Your task to perform on an android device: Is it going to rain today? Image 0: 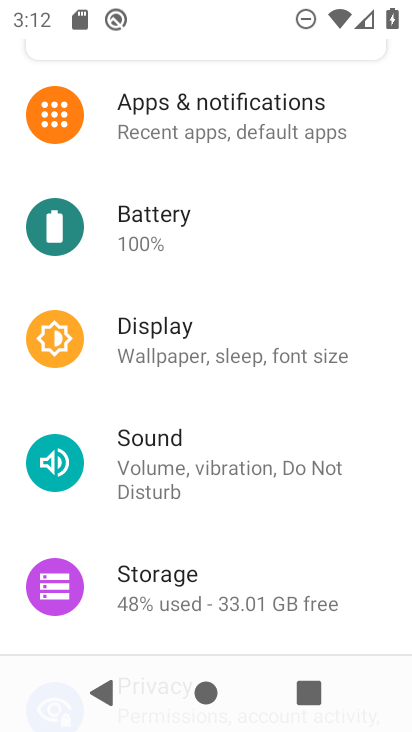
Step 0: press home button
Your task to perform on an android device: Is it going to rain today? Image 1: 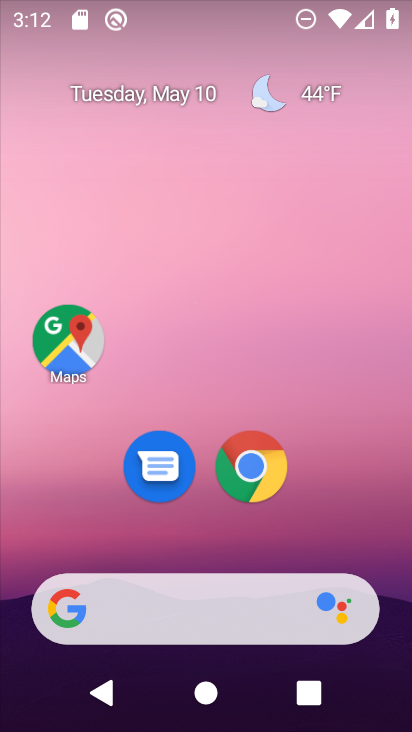
Step 1: drag from (270, 567) to (272, 44)
Your task to perform on an android device: Is it going to rain today? Image 2: 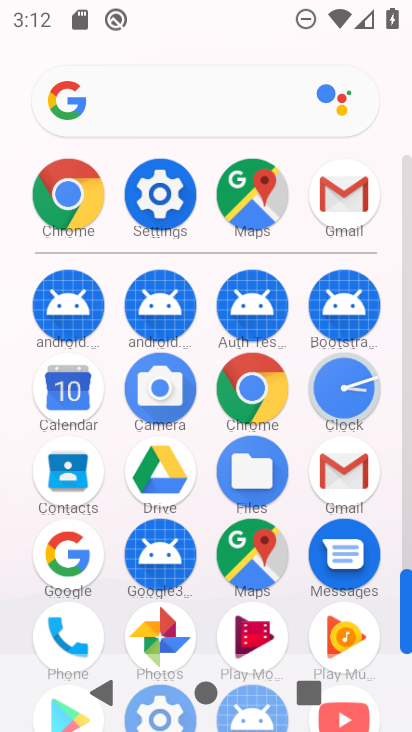
Step 2: click (204, 103)
Your task to perform on an android device: Is it going to rain today? Image 3: 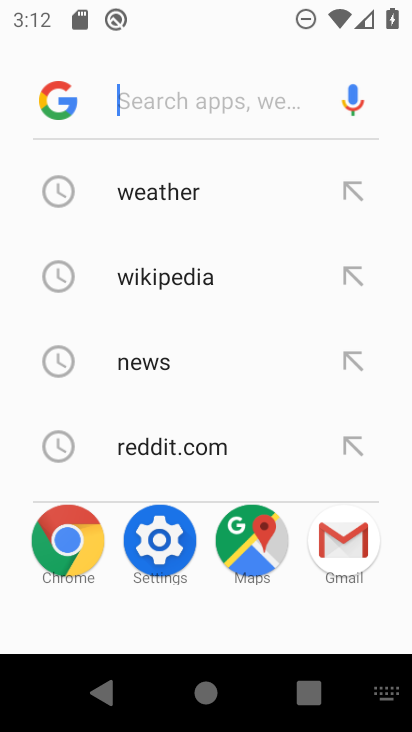
Step 3: type "is it going to rain today"
Your task to perform on an android device: Is it going to rain today? Image 4: 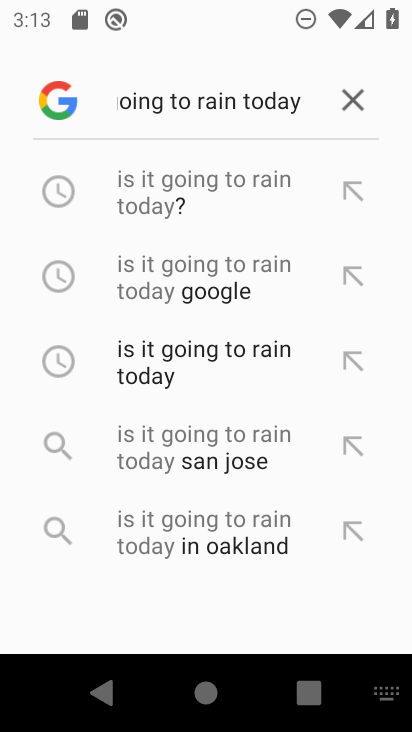
Step 4: click (223, 170)
Your task to perform on an android device: Is it going to rain today? Image 5: 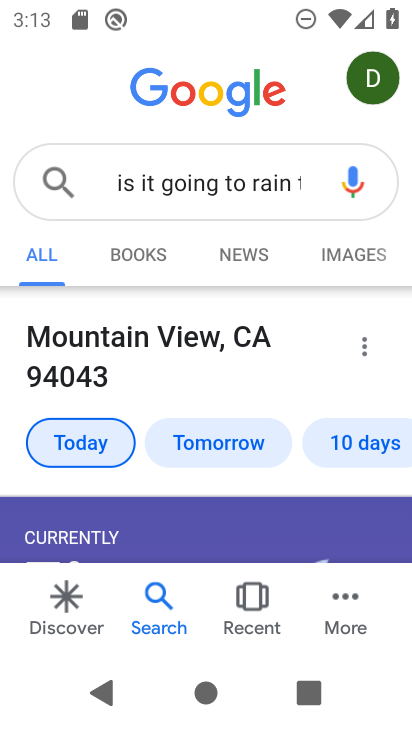
Step 5: task complete